Your task to perform on an android device: turn on priority inbox in the gmail app Image 0: 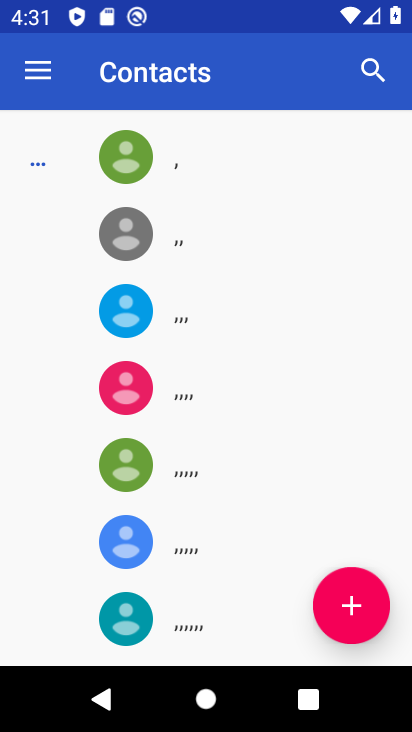
Step 0: press home button
Your task to perform on an android device: turn on priority inbox in the gmail app Image 1: 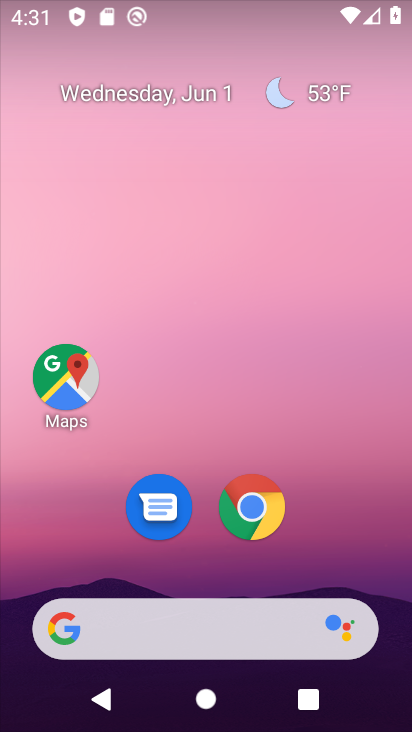
Step 1: drag from (377, 540) to (295, 9)
Your task to perform on an android device: turn on priority inbox in the gmail app Image 2: 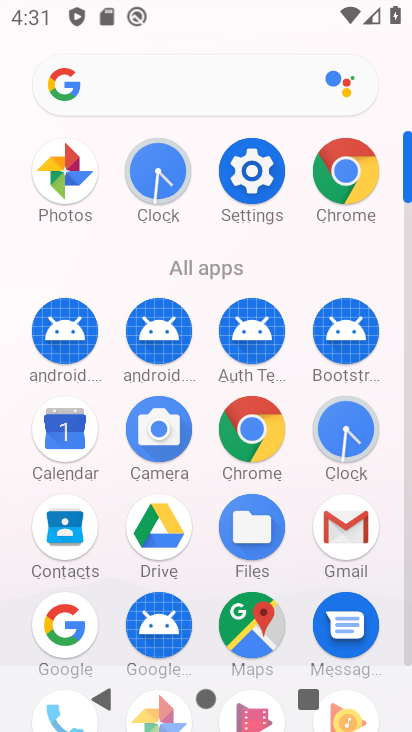
Step 2: click (365, 514)
Your task to perform on an android device: turn on priority inbox in the gmail app Image 3: 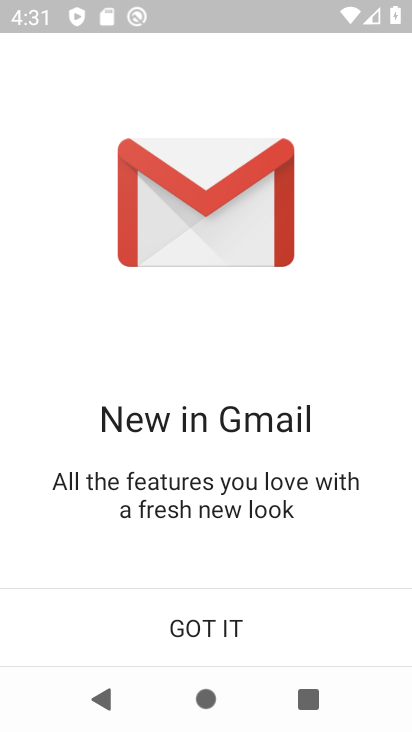
Step 3: click (219, 611)
Your task to perform on an android device: turn on priority inbox in the gmail app Image 4: 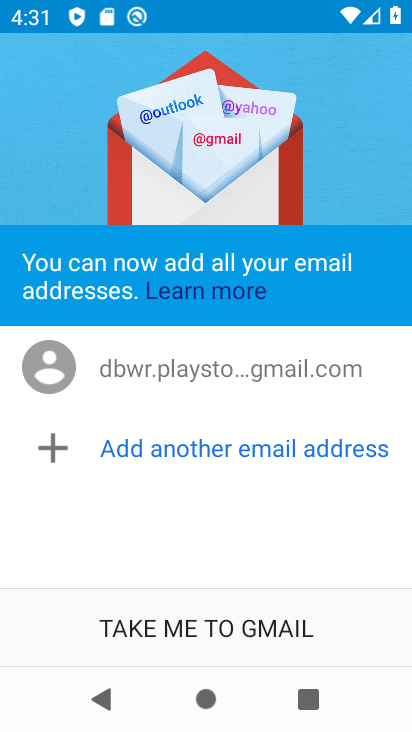
Step 4: click (220, 627)
Your task to perform on an android device: turn on priority inbox in the gmail app Image 5: 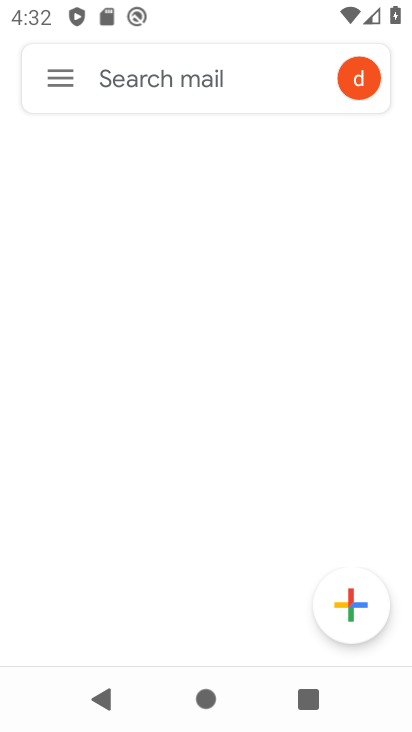
Step 5: click (51, 95)
Your task to perform on an android device: turn on priority inbox in the gmail app Image 6: 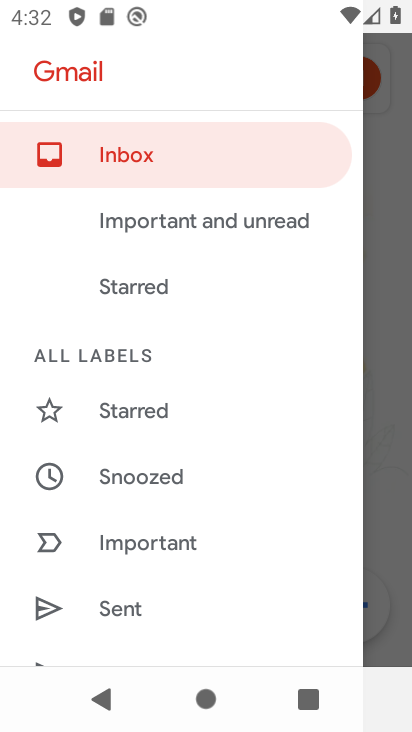
Step 6: drag from (230, 618) to (173, 82)
Your task to perform on an android device: turn on priority inbox in the gmail app Image 7: 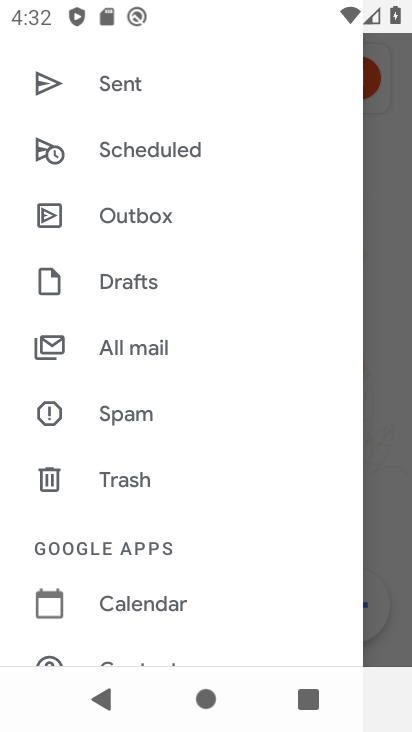
Step 7: drag from (158, 628) to (110, 226)
Your task to perform on an android device: turn on priority inbox in the gmail app Image 8: 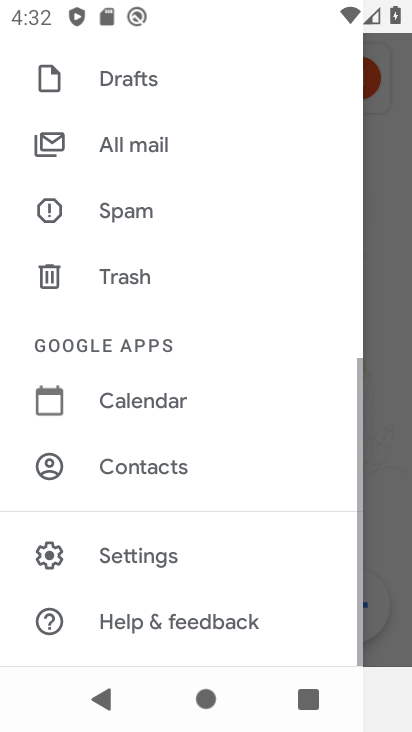
Step 8: click (159, 554)
Your task to perform on an android device: turn on priority inbox in the gmail app Image 9: 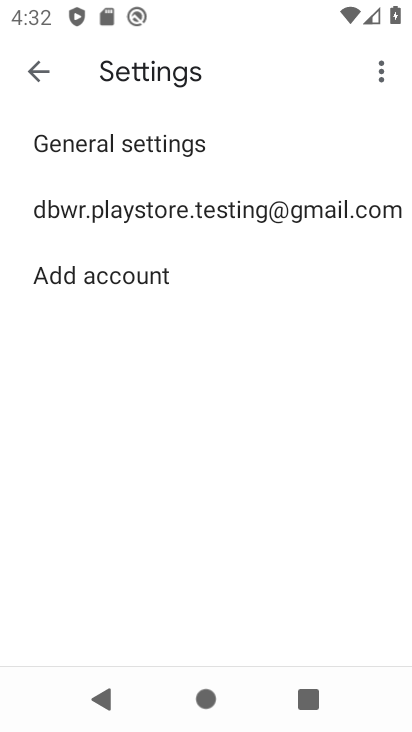
Step 9: click (118, 208)
Your task to perform on an android device: turn on priority inbox in the gmail app Image 10: 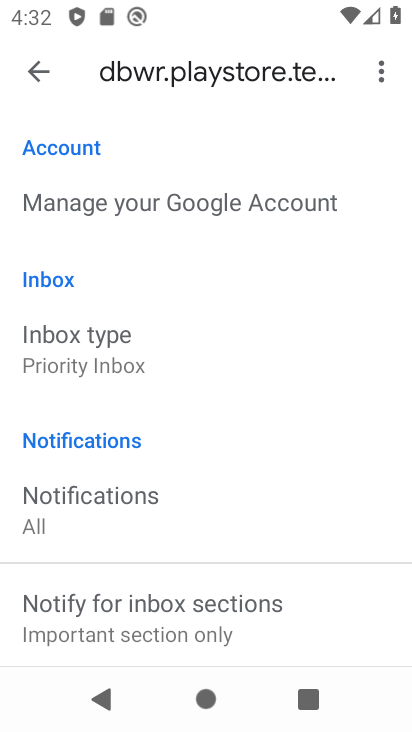
Step 10: click (83, 363)
Your task to perform on an android device: turn on priority inbox in the gmail app Image 11: 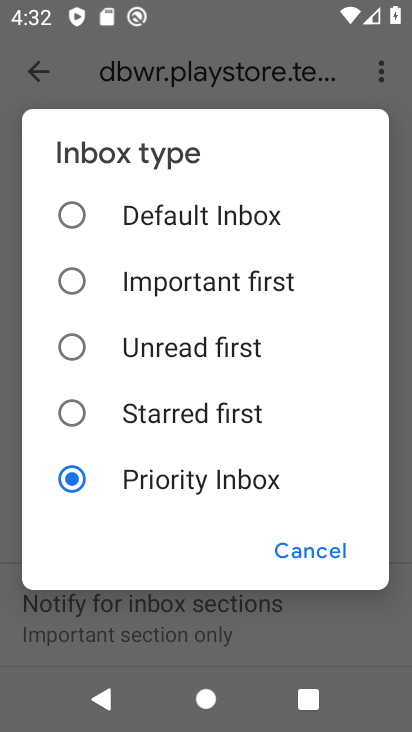
Step 11: task complete